Your task to perform on an android device: Go to Maps Image 0: 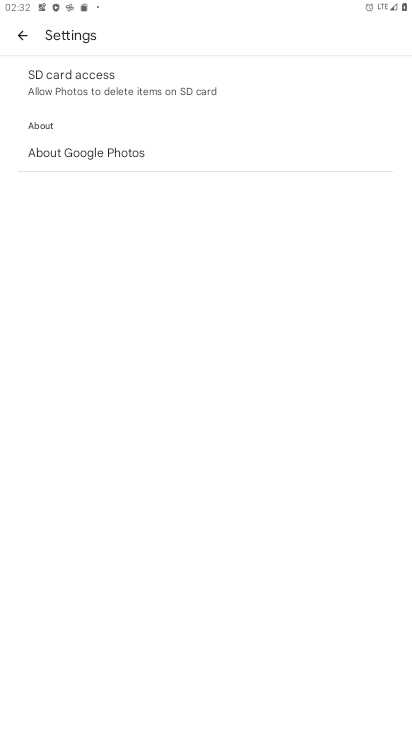
Step 0: press home button
Your task to perform on an android device: Go to Maps Image 1: 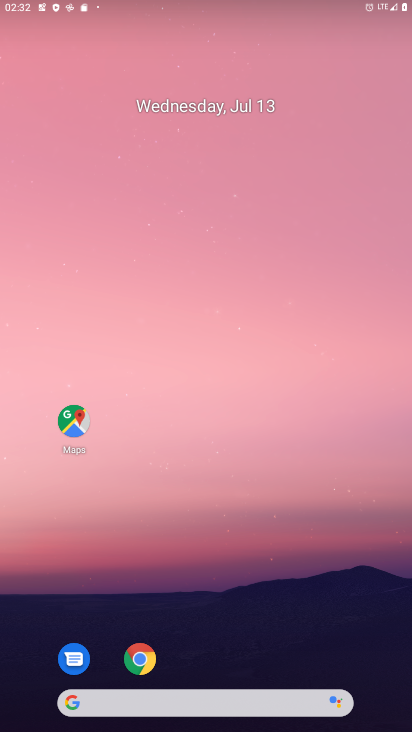
Step 1: drag from (229, 724) to (249, 117)
Your task to perform on an android device: Go to Maps Image 2: 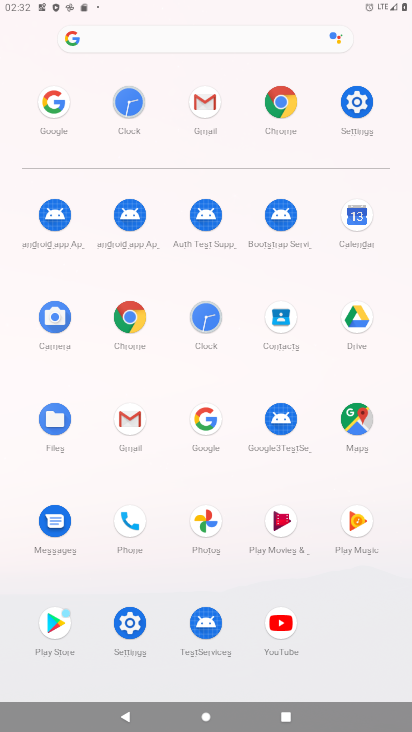
Step 2: click (358, 418)
Your task to perform on an android device: Go to Maps Image 3: 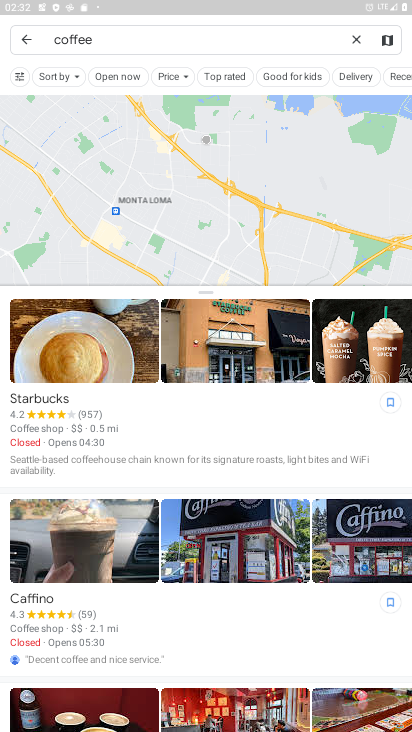
Step 3: task complete